Your task to perform on an android device: Open privacy settings Image 0: 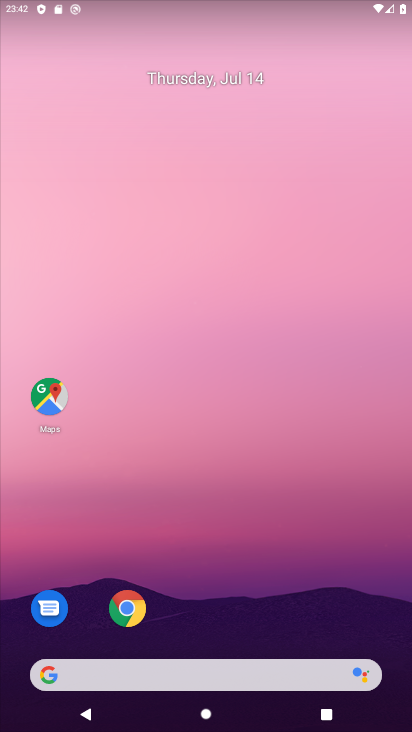
Step 0: drag from (23, 657) to (187, 115)
Your task to perform on an android device: Open privacy settings Image 1: 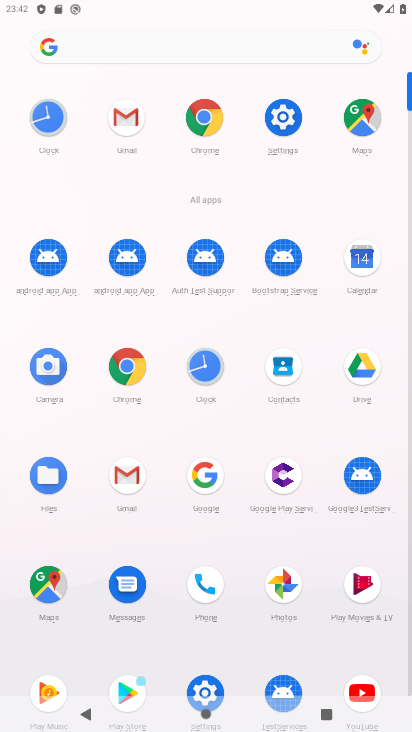
Step 1: click (192, 686)
Your task to perform on an android device: Open privacy settings Image 2: 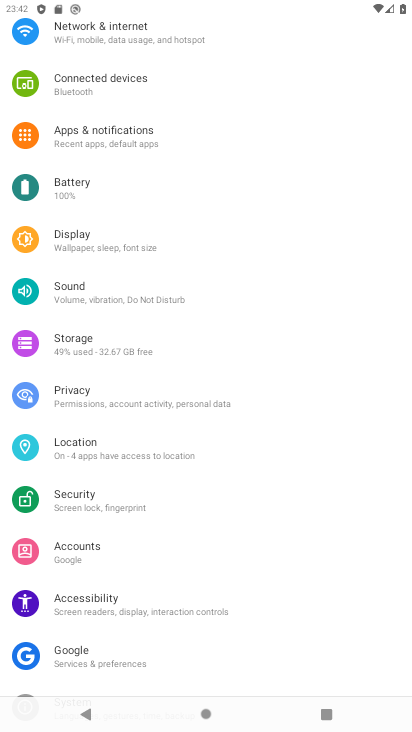
Step 2: click (113, 402)
Your task to perform on an android device: Open privacy settings Image 3: 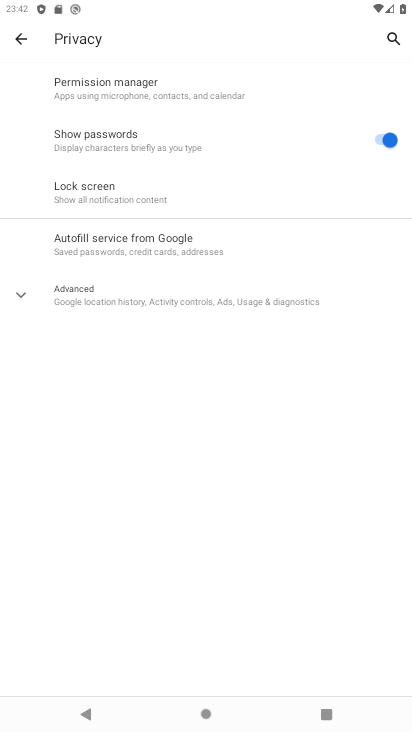
Step 3: task complete